Your task to perform on an android device: make emails show in primary in the gmail app Image 0: 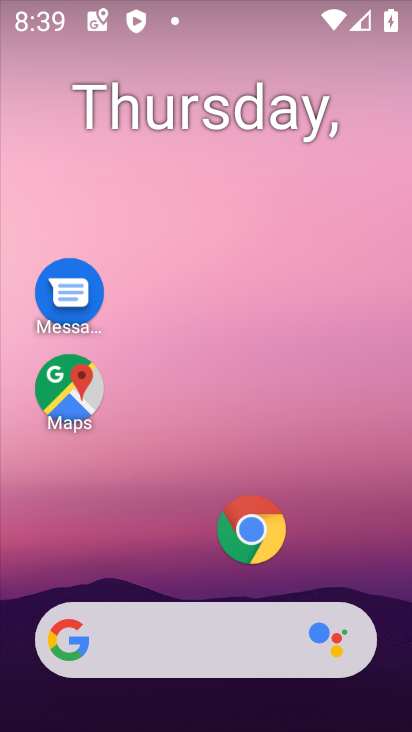
Step 0: drag from (127, 528) to (177, 140)
Your task to perform on an android device: make emails show in primary in the gmail app Image 1: 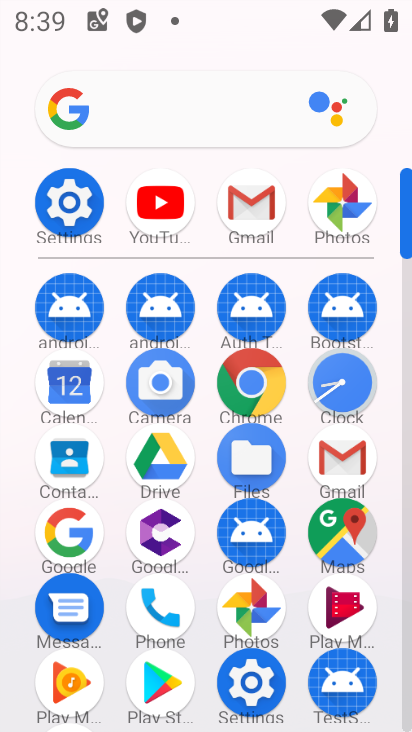
Step 1: click (271, 197)
Your task to perform on an android device: make emails show in primary in the gmail app Image 2: 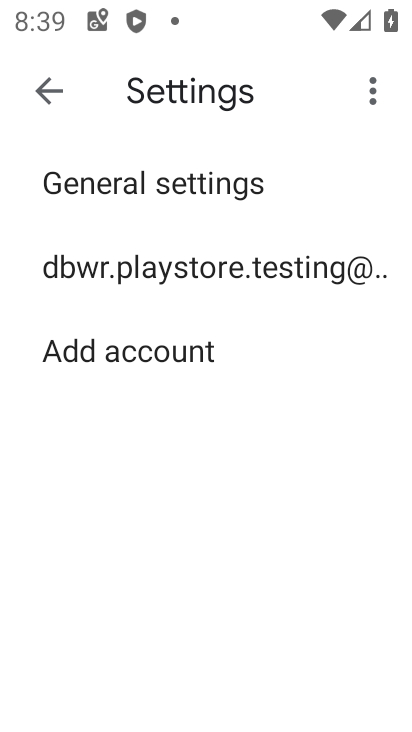
Step 2: click (43, 119)
Your task to perform on an android device: make emails show in primary in the gmail app Image 3: 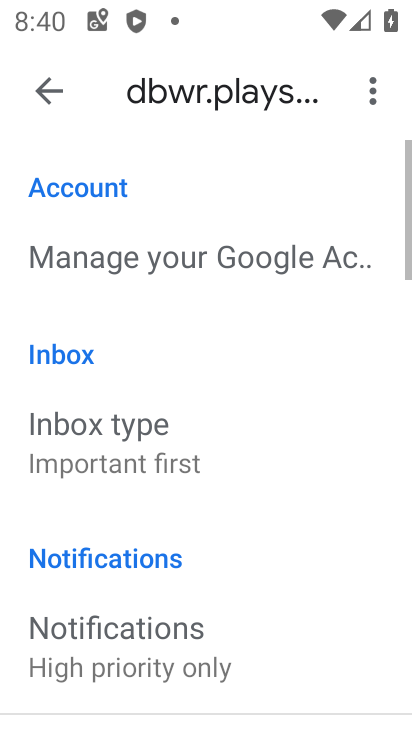
Step 3: click (43, 119)
Your task to perform on an android device: make emails show in primary in the gmail app Image 4: 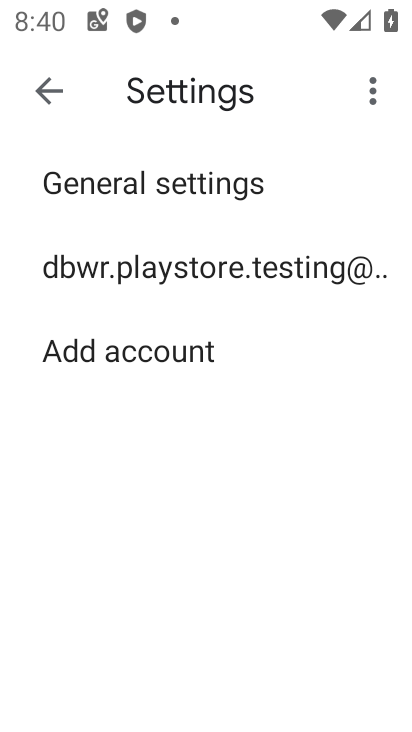
Step 4: click (43, 119)
Your task to perform on an android device: make emails show in primary in the gmail app Image 5: 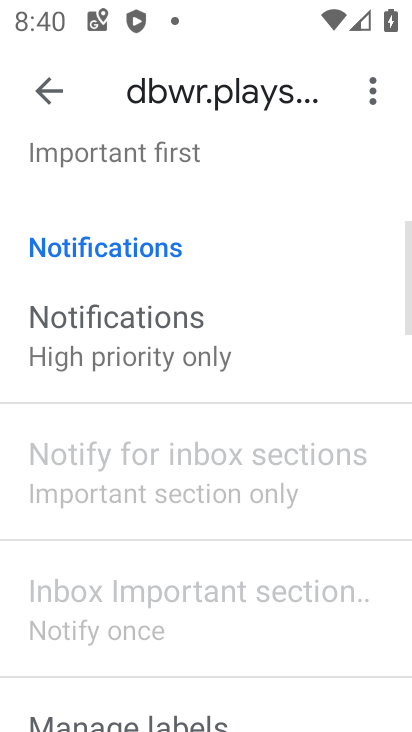
Step 5: click (43, 110)
Your task to perform on an android device: make emails show in primary in the gmail app Image 6: 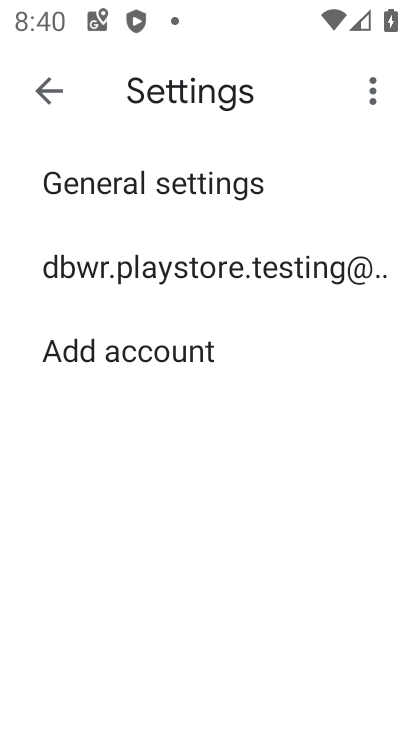
Step 6: click (44, 94)
Your task to perform on an android device: make emails show in primary in the gmail app Image 7: 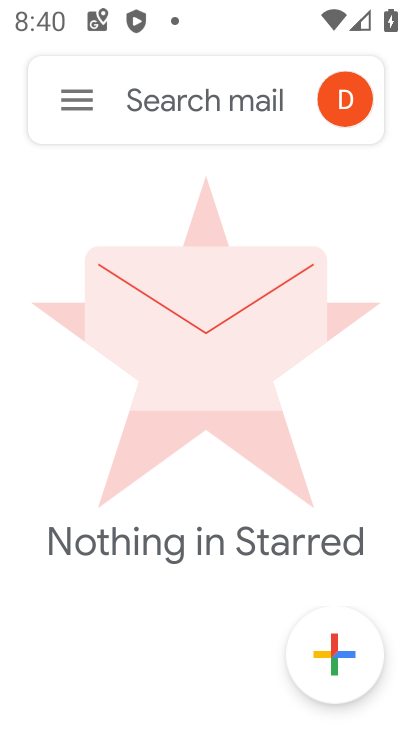
Step 7: click (88, 112)
Your task to perform on an android device: make emails show in primary in the gmail app Image 8: 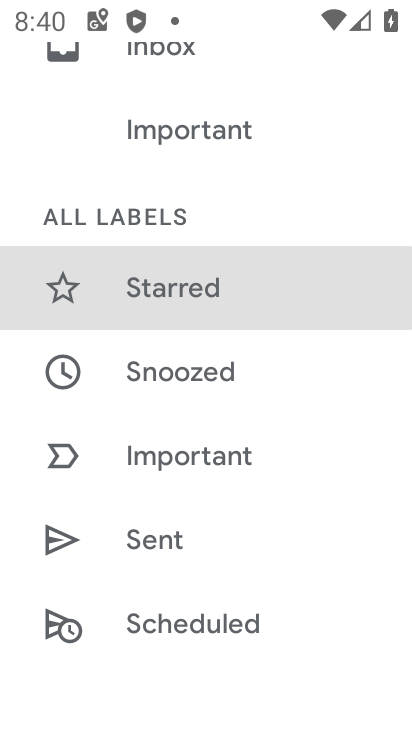
Step 8: task complete